Your task to perform on an android device: Open Google Maps Image 0: 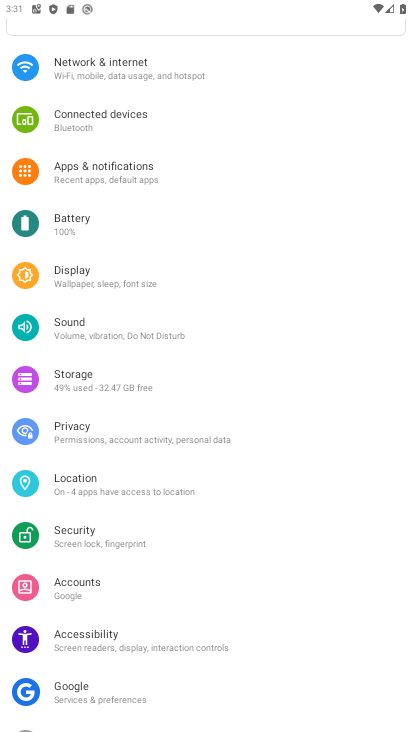
Step 0: press home button
Your task to perform on an android device: Open Google Maps Image 1: 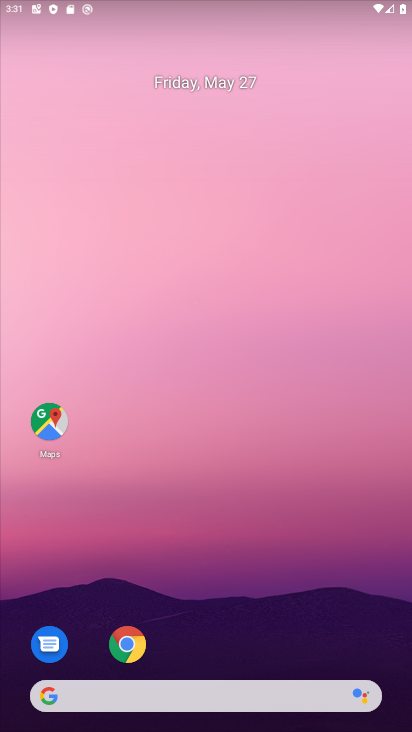
Step 1: click (52, 422)
Your task to perform on an android device: Open Google Maps Image 2: 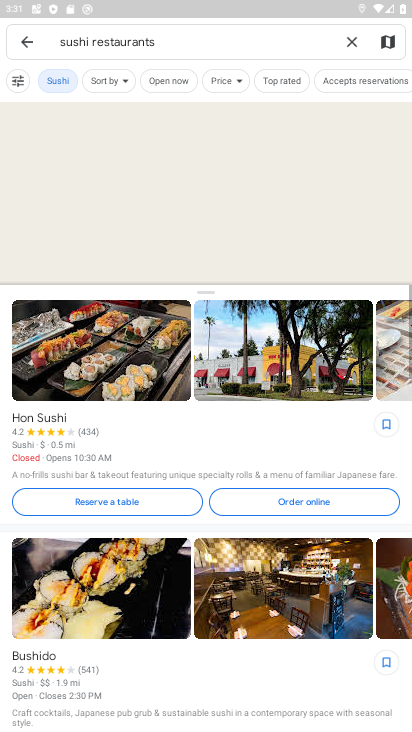
Step 2: task complete